Your task to perform on an android device: Search for sushi restaurants on Maps Image 0: 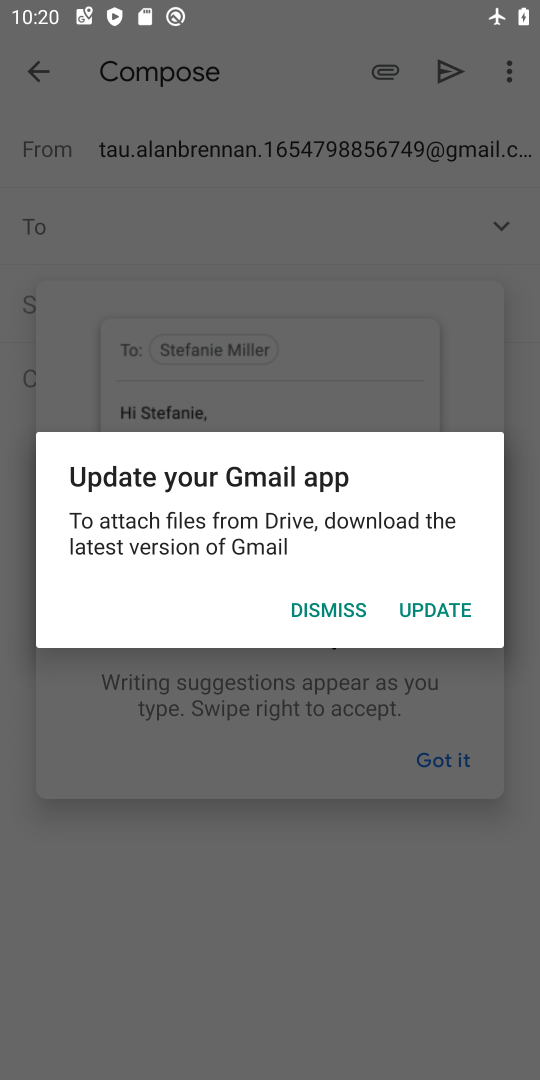
Step 0: click (342, 591)
Your task to perform on an android device: Search for sushi restaurants on Maps Image 1: 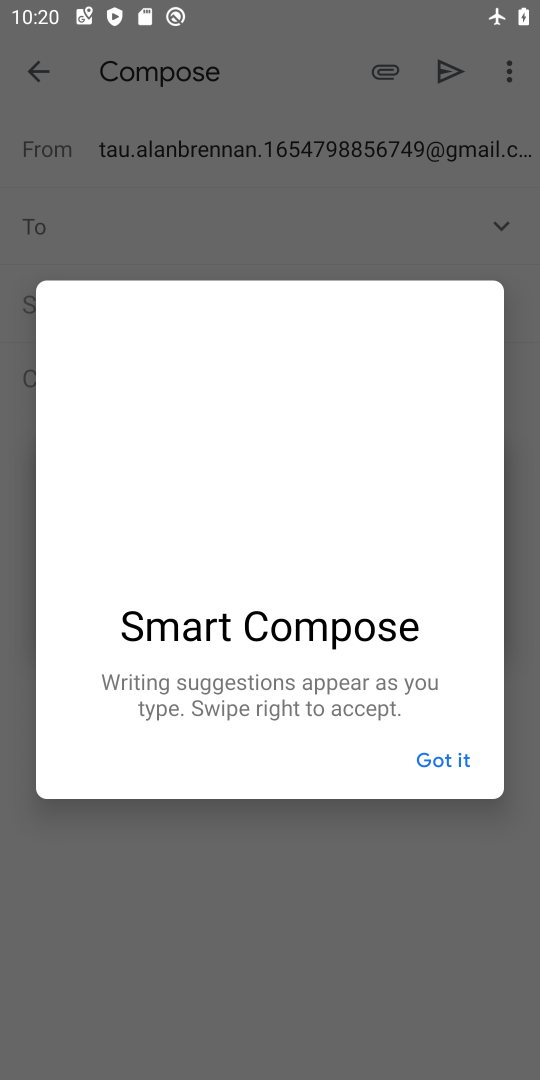
Step 1: click (455, 759)
Your task to perform on an android device: Search for sushi restaurants on Maps Image 2: 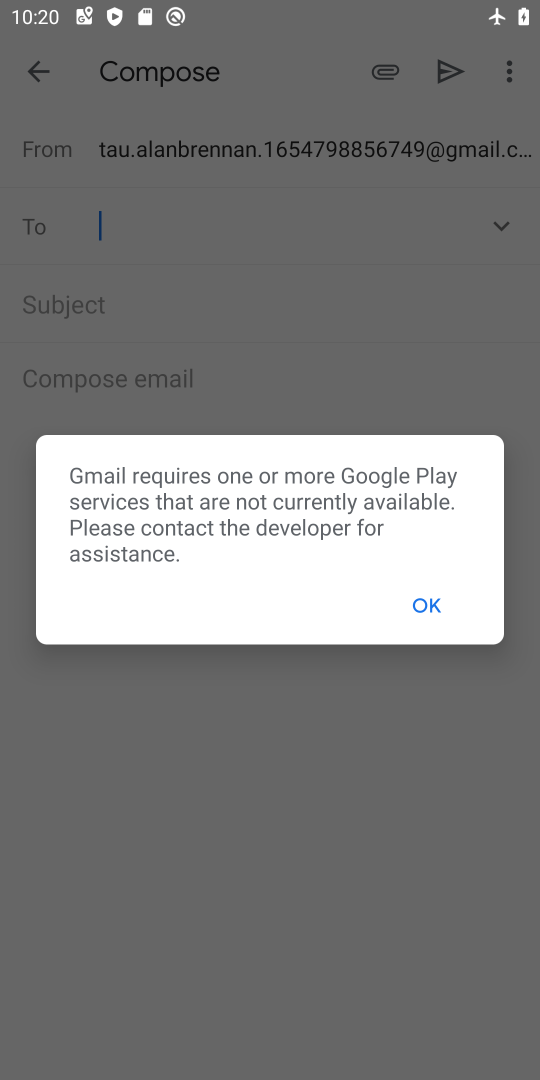
Step 2: press home button
Your task to perform on an android device: Search for sushi restaurants on Maps Image 3: 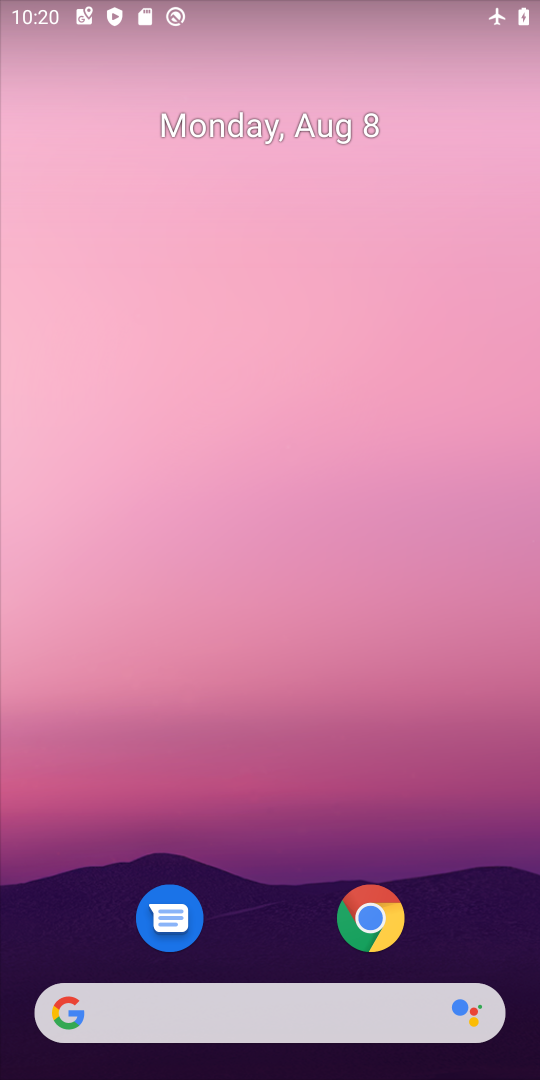
Step 3: drag from (310, 981) to (235, 141)
Your task to perform on an android device: Search for sushi restaurants on Maps Image 4: 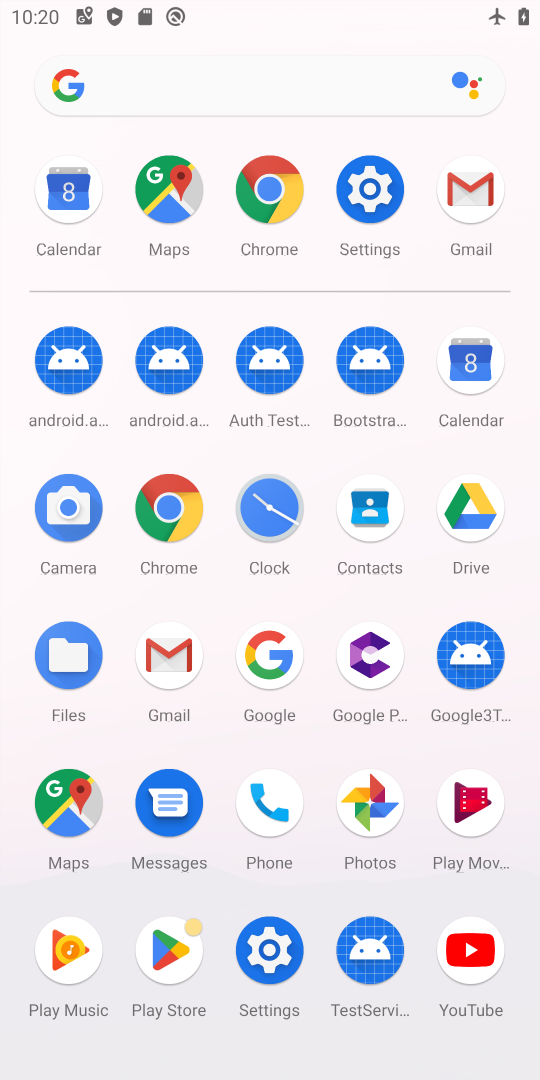
Step 4: click (70, 770)
Your task to perform on an android device: Search for sushi restaurants on Maps Image 5: 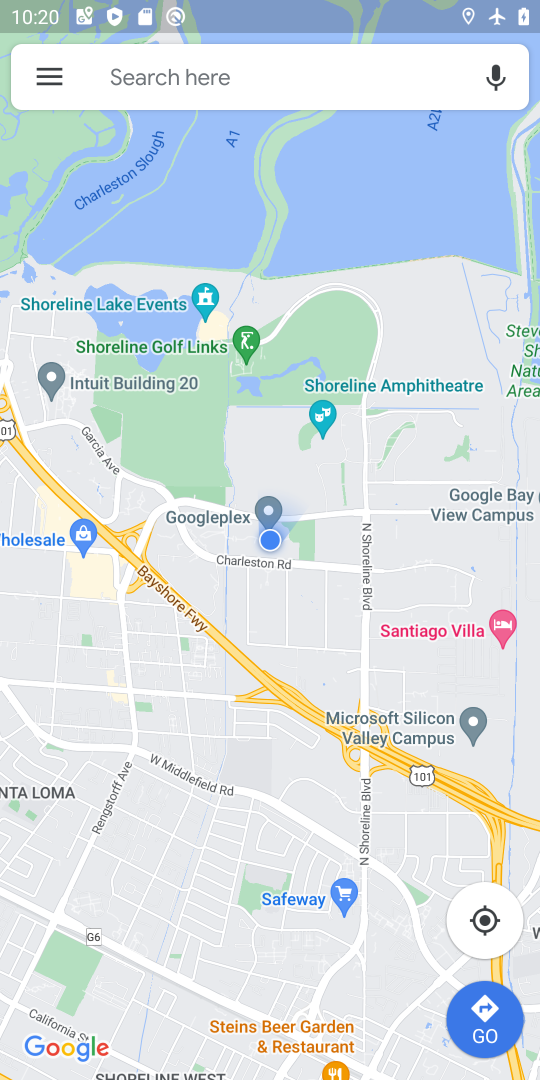
Step 5: click (250, 93)
Your task to perform on an android device: Search for sushi restaurants on Maps Image 6: 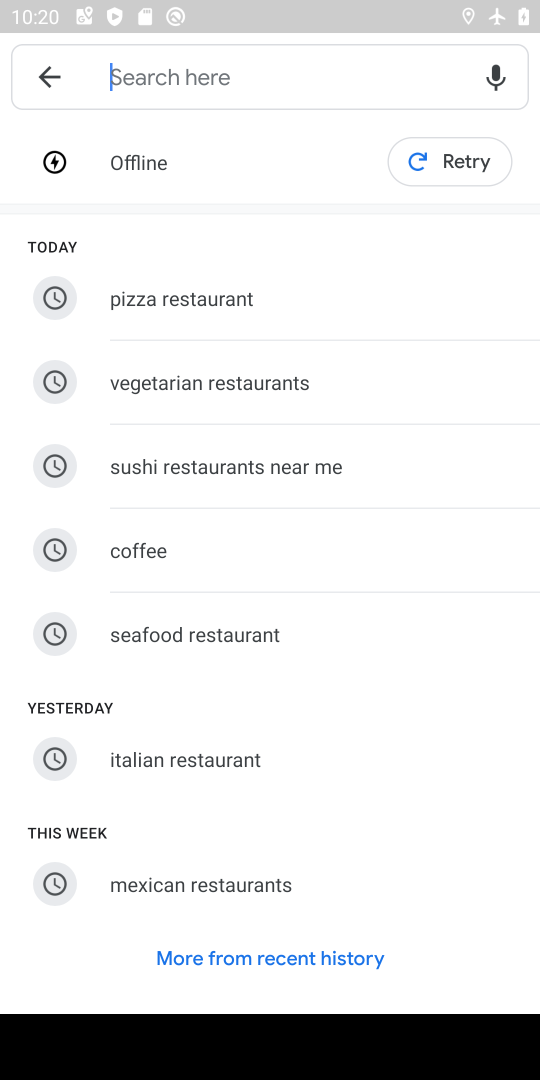
Step 6: click (161, 483)
Your task to perform on an android device: Search for sushi restaurants on Maps Image 7: 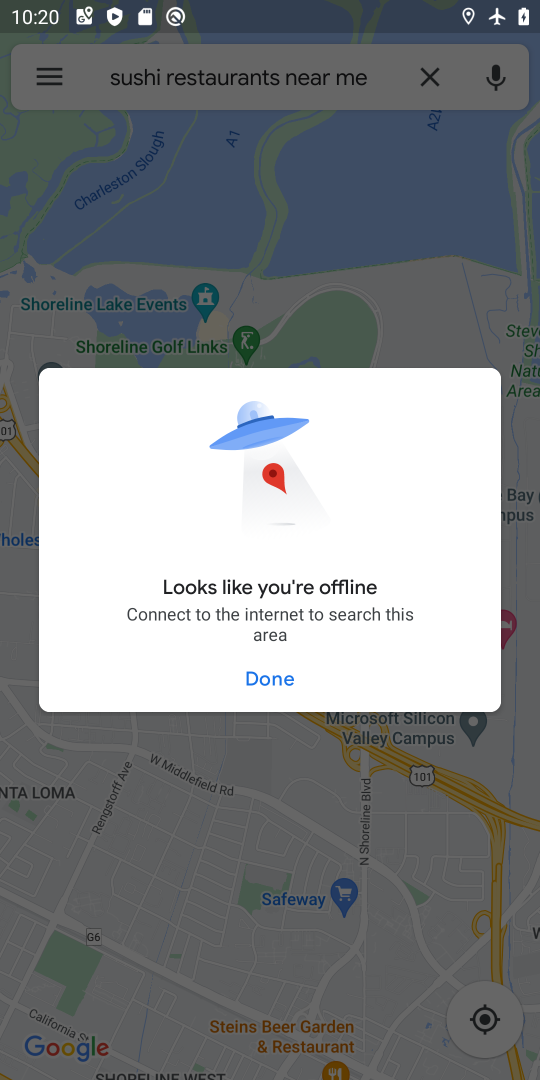
Step 7: click (253, 674)
Your task to perform on an android device: Search for sushi restaurants on Maps Image 8: 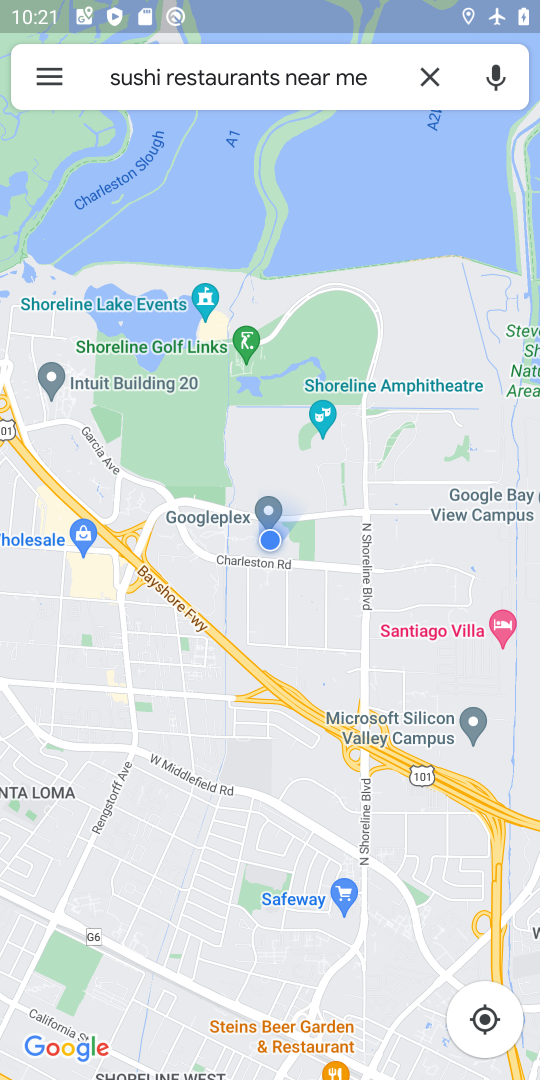
Step 8: task complete